Your task to perform on an android device: What's the weather today? Image 0: 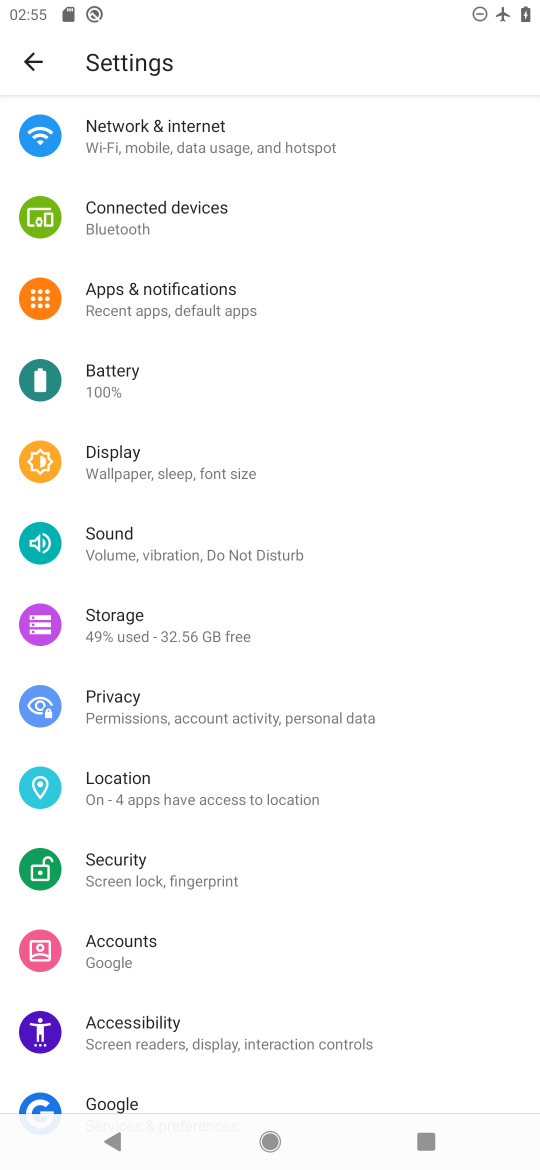
Step 0: press home button
Your task to perform on an android device: What's the weather today? Image 1: 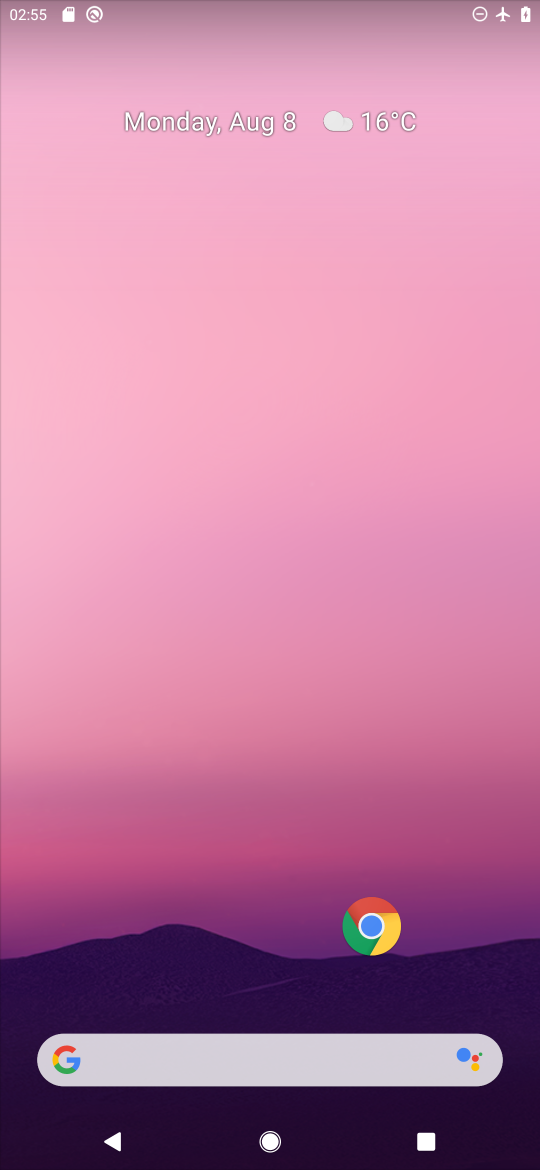
Step 1: drag from (187, 1057) to (227, 100)
Your task to perform on an android device: What's the weather today? Image 2: 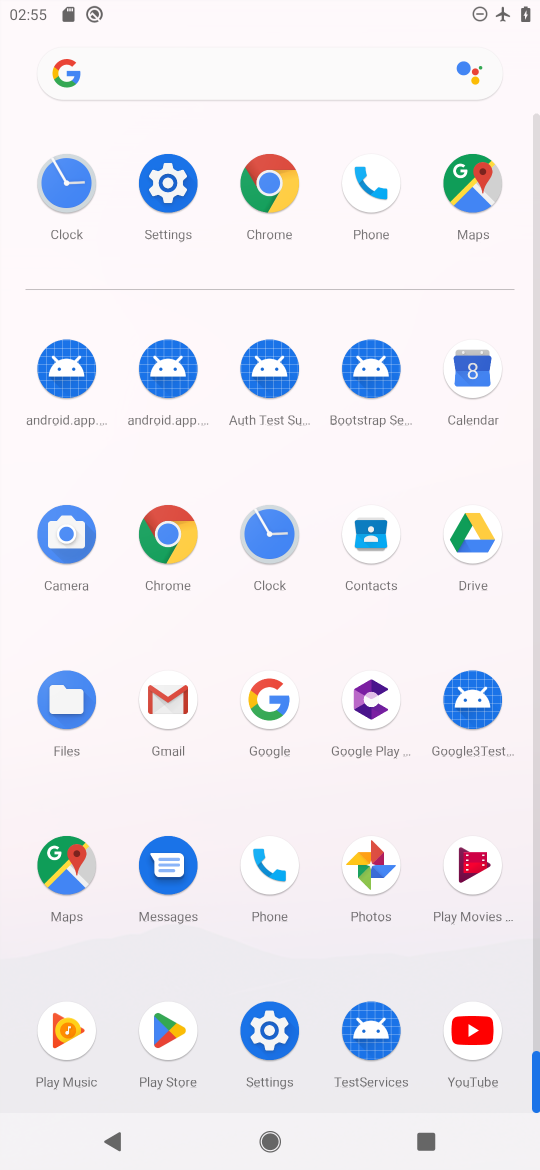
Step 2: click (256, 183)
Your task to perform on an android device: What's the weather today? Image 3: 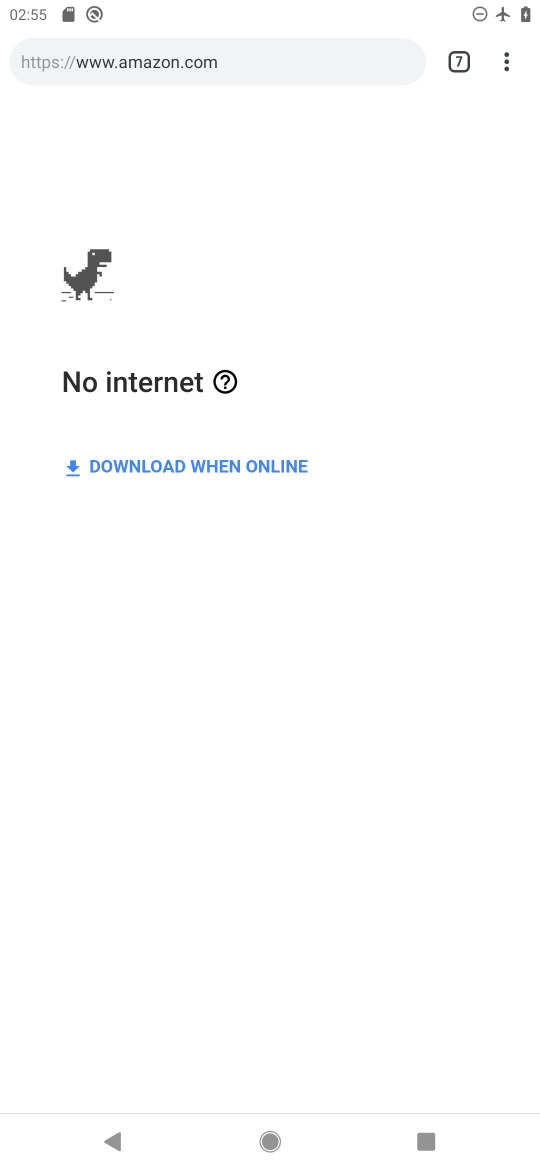
Step 3: click (513, 61)
Your task to perform on an android device: What's the weather today? Image 4: 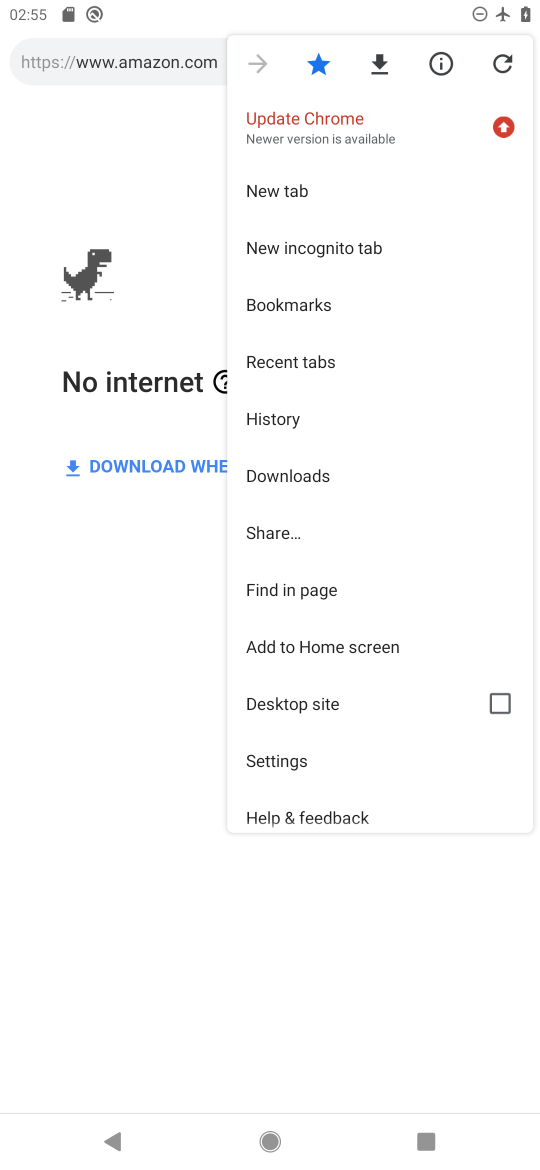
Step 4: click (293, 191)
Your task to perform on an android device: What's the weather today? Image 5: 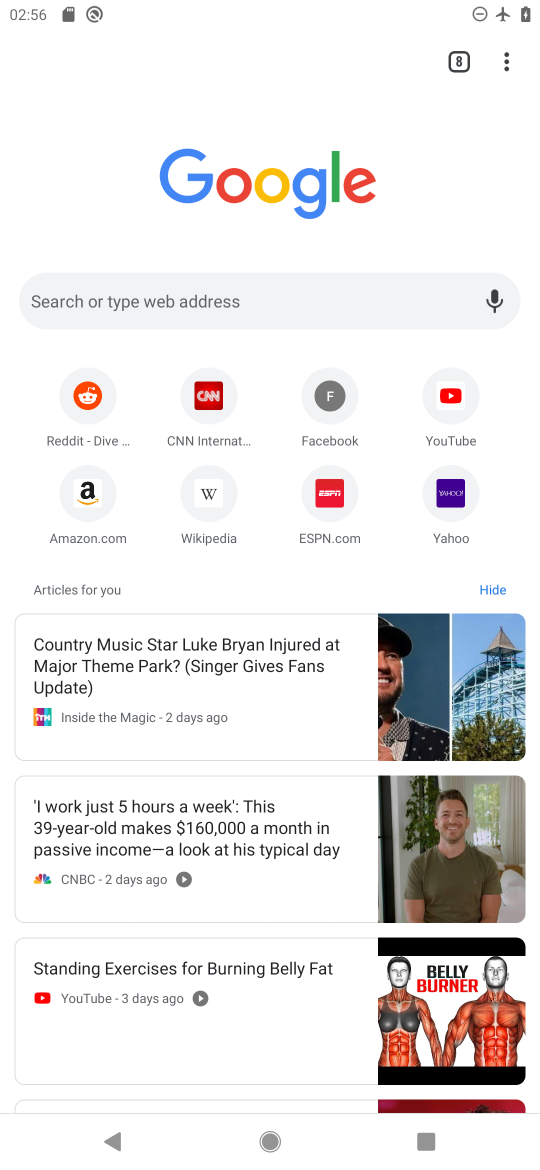
Step 5: click (245, 292)
Your task to perform on an android device: What's the weather today? Image 6: 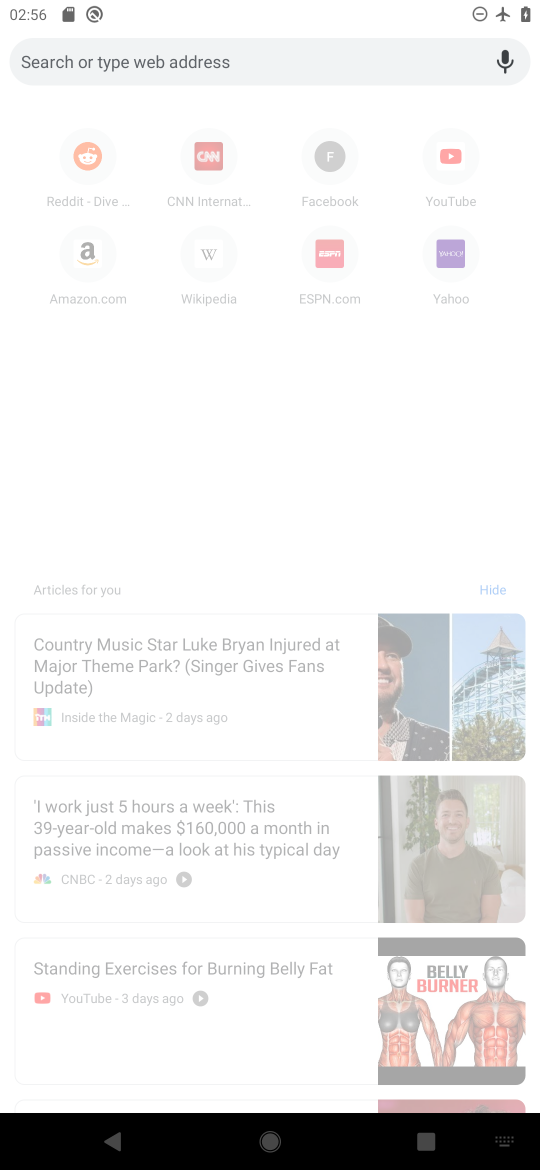
Step 6: type "What's the weather today? "
Your task to perform on an android device: What's the weather today? Image 7: 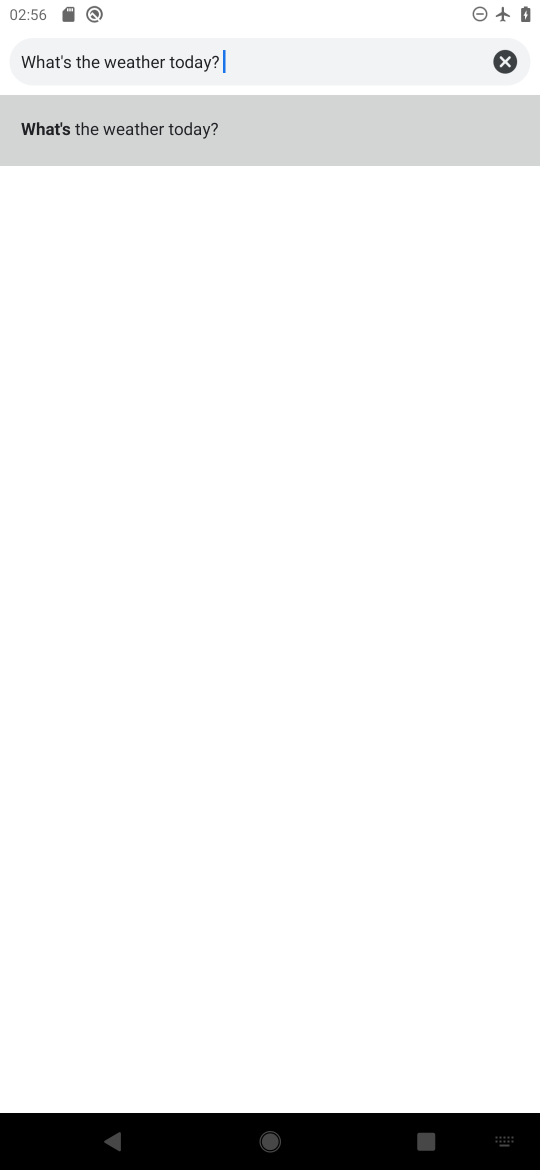
Step 7: click (393, 127)
Your task to perform on an android device: What's the weather today? Image 8: 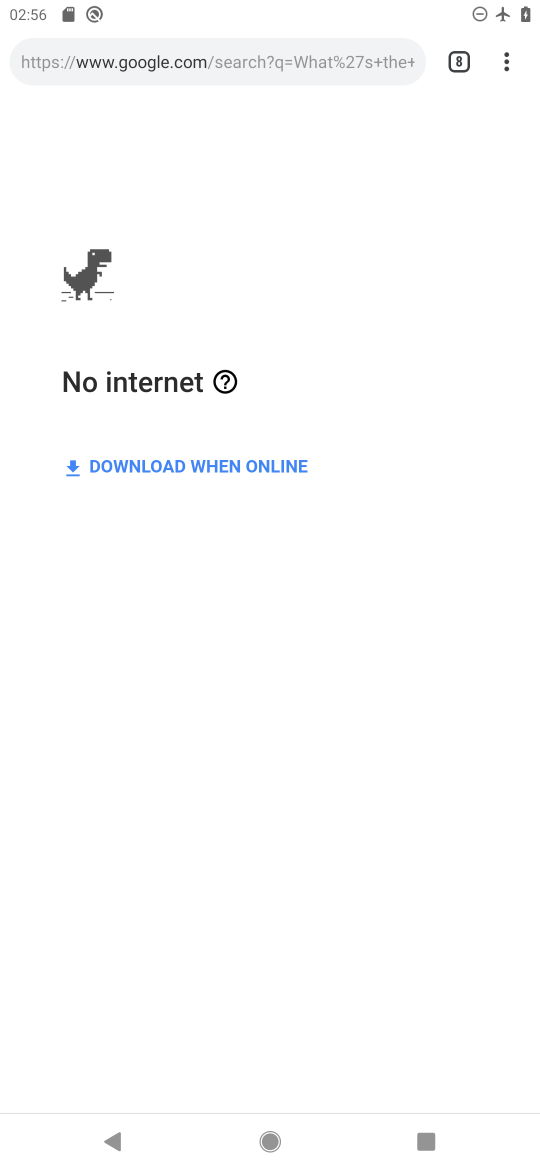
Step 8: task complete